Your task to perform on an android device: refresh tabs in the chrome app Image 0: 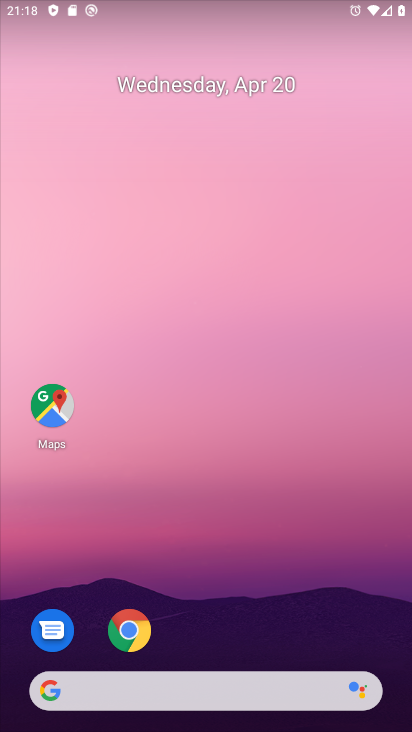
Step 0: click (131, 632)
Your task to perform on an android device: refresh tabs in the chrome app Image 1: 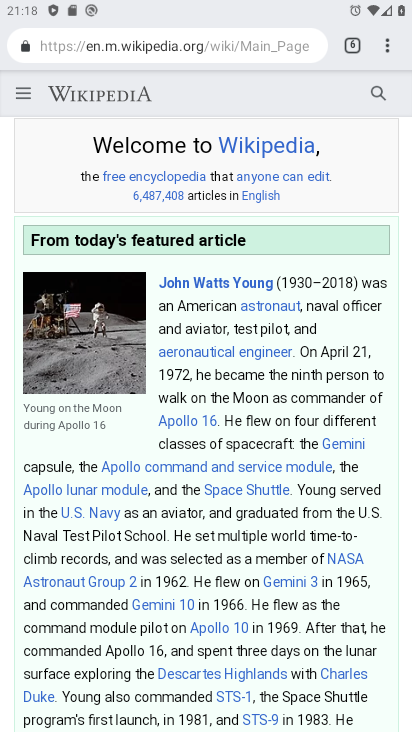
Step 1: click (387, 50)
Your task to perform on an android device: refresh tabs in the chrome app Image 2: 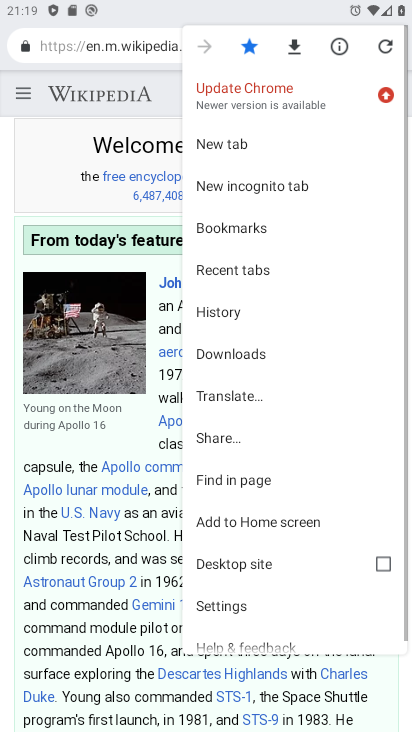
Step 2: click (387, 50)
Your task to perform on an android device: refresh tabs in the chrome app Image 3: 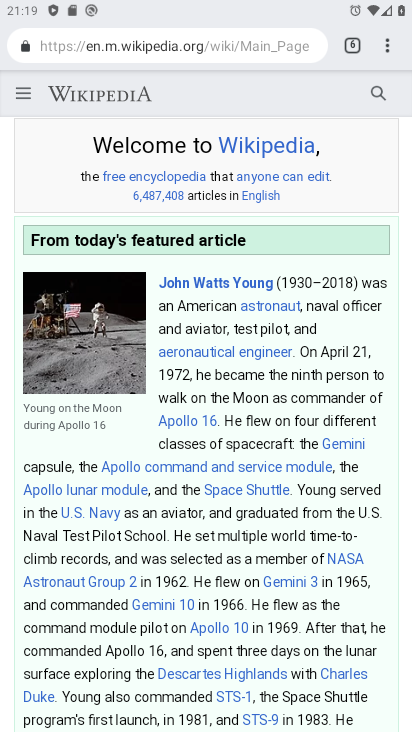
Step 3: task complete